Your task to perform on an android device: Search for seafood restaurants on Google Maps Image 0: 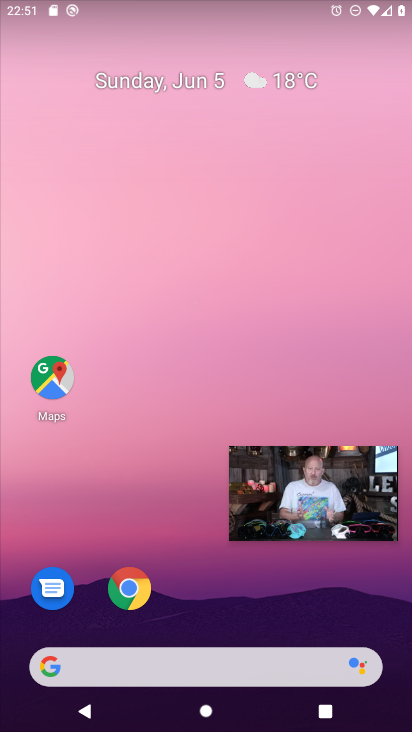
Step 0: drag from (208, 615) to (230, 113)
Your task to perform on an android device: Search for seafood restaurants on Google Maps Image 1: 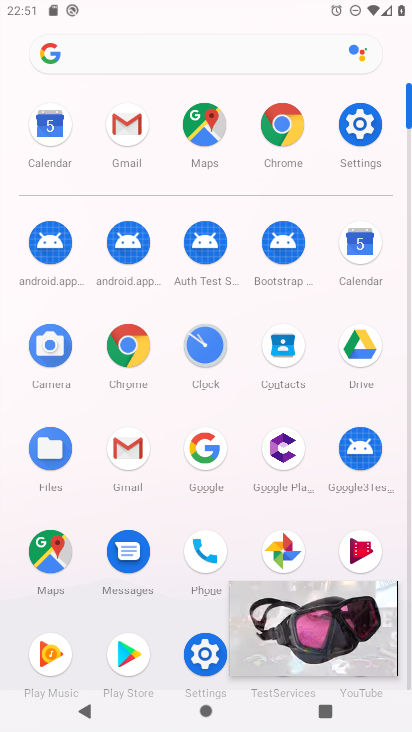
Step 1: click (204, 137)
Your task to perform on an android device: Search for seafood restaurants on Google Maps Image 2: 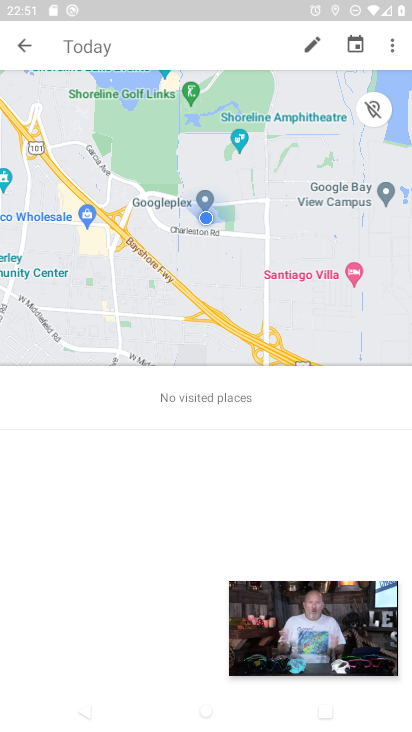
Step 2: click (9, 36)
Your task to perform on an android device: Search for seafood restaurants on Google Maps Image 3: 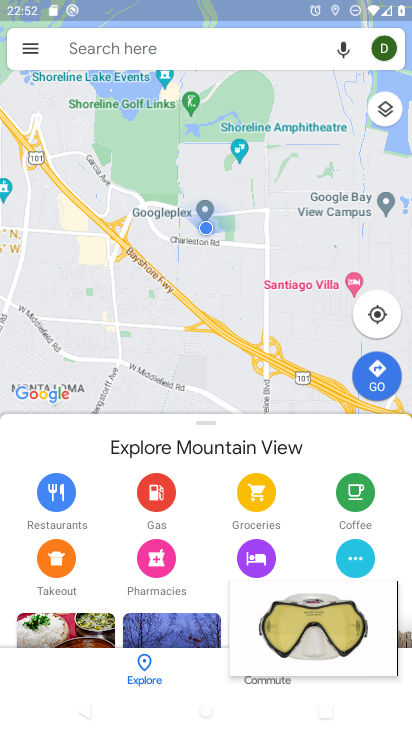
Step 3: click (177, 42)
Your task to perform on an android device: Search for seafood restaurants on Google Maps Image 4: 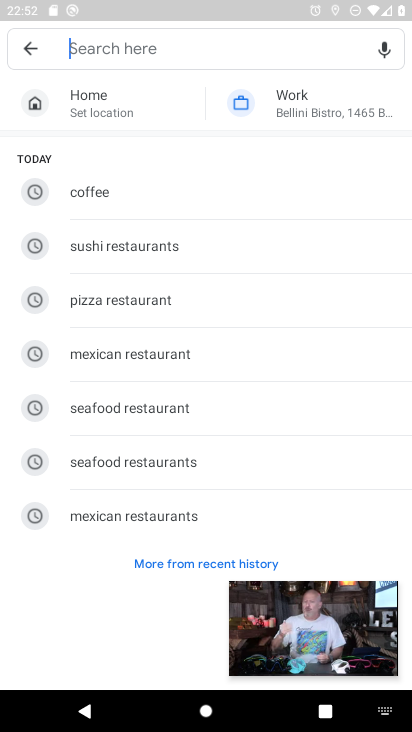
Step 4: type "seafood restaurants"
Your task to perform on an android device: Search for seafood restaurants on Google Maps Image 5: 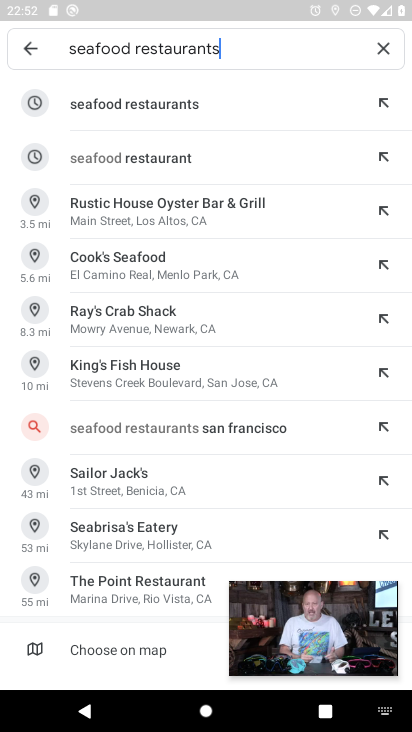
Step 5: click (185, 101)
Your task to perform on an android device: Search for seafood restaurants on Google Maps Image 6: 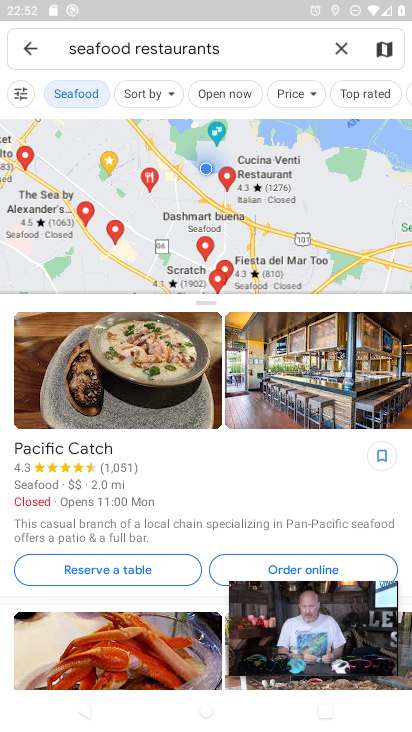
Step 6: task complete